Your task to perform on an android device: empty trash in the gmail app Image 0: 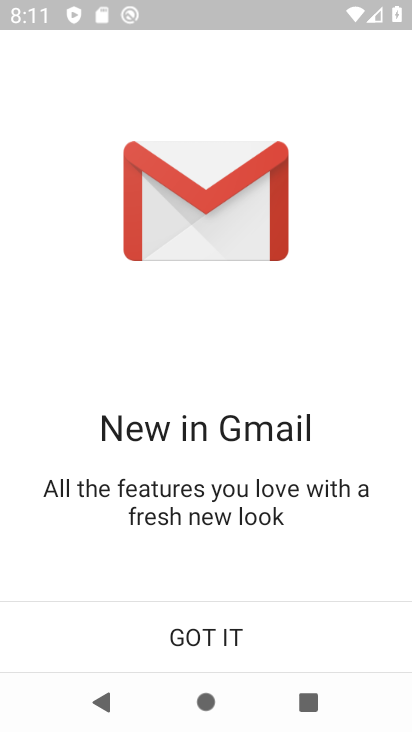
Step 0: press back button
Your task to perform on an android device: empty trash in the gmail app Image 1: 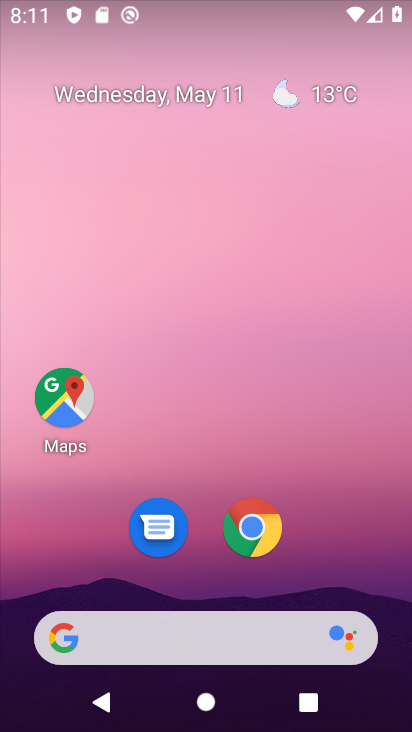
Step 1: drag from (178, 605) to (275, 151)
Your task to perform on an android device: empty trash in the gmail app Image 2: 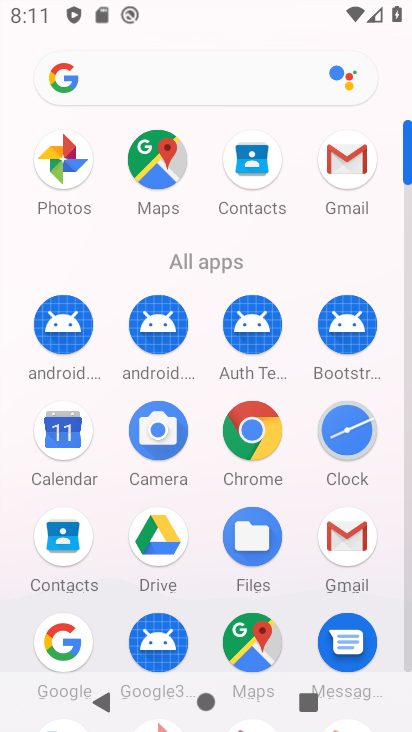
Step 2: click (343, 162)
Your task to perform on an android device: empty trash in the gmail app Image 3: 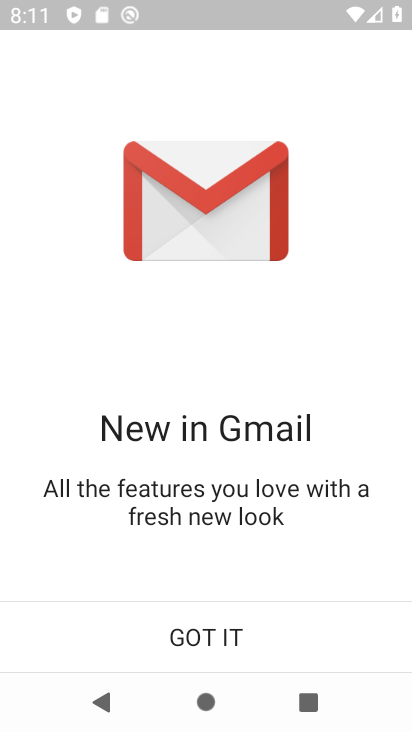
Step 3: click (202, 631)
Your task to perform on an android device: empty trash in the gmail app Image 4: 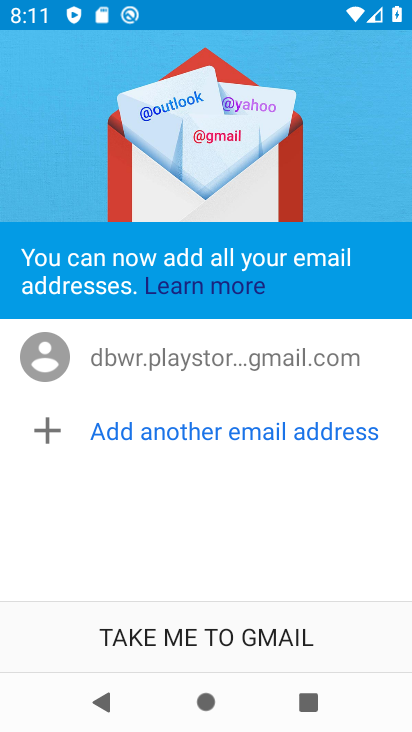
Step 4: click (223, 640)
Your task to perform on an android device: empty trash in the gmail app Image 5: 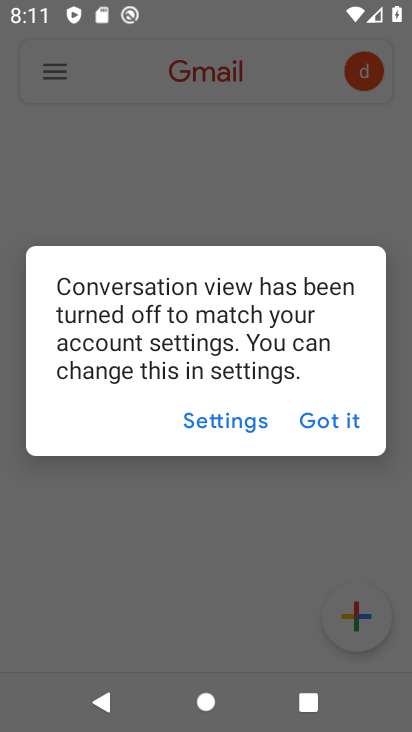
Step 5: click (343, 434)
Your task to perform on an android device: empty trash in the gmail app Image 6: 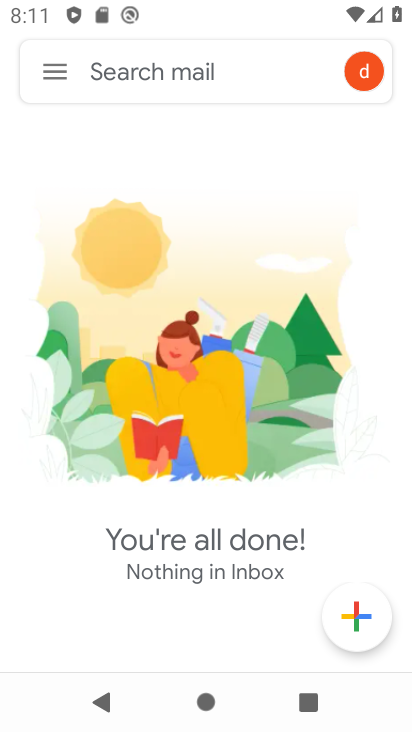
Step 6: click (43, 61)
Your task to perform on an android device: empty trash in the gmail app Image 7: 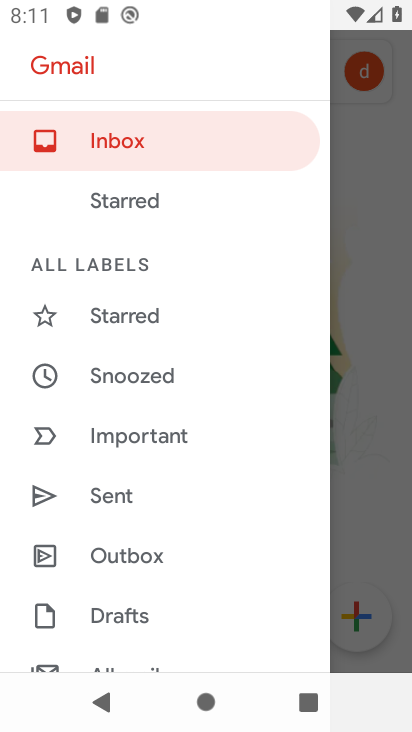
Step 7: drag from (149, 582) to (204, 296)
Your task to perform on an android device: empty trash in the gmail app Image 8: 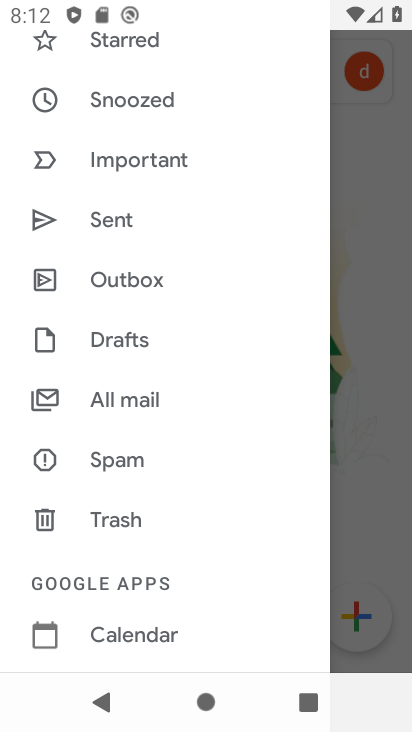
Step 8: click (152, 525)
Your task to perform on an android device: empty trash in the gmail app Image 9: 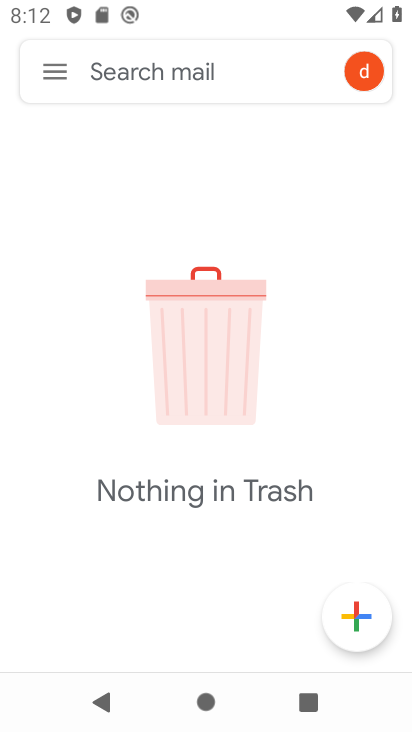
Step 9: task complete